Your task to perform on an android device: Search for razer huntsman on ebay.com, select the first entry, and add it to the cart. Image 0: 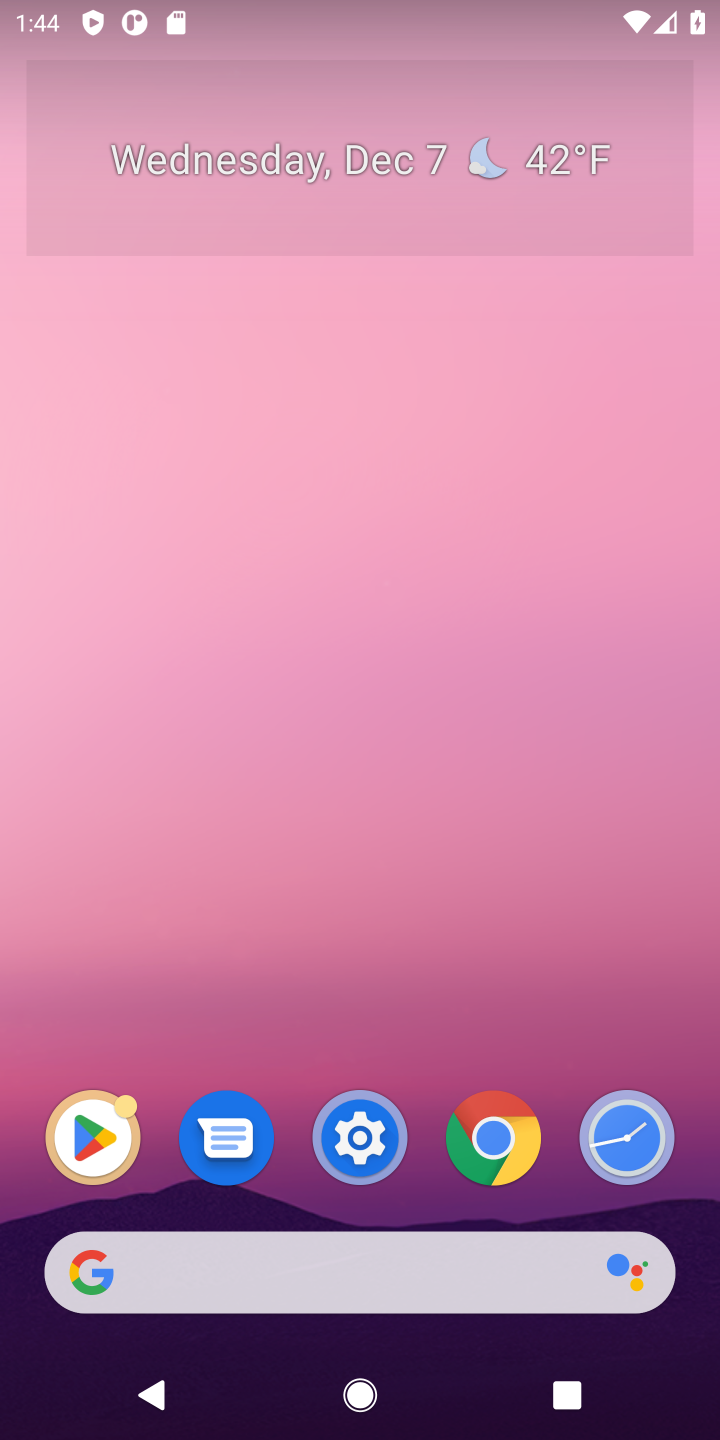
Step 0: click (363, 1288)
Your task to perform on an android device: Search for razer huntsman on ebay.com, select the first entry, and add it to the cart. Image 1: 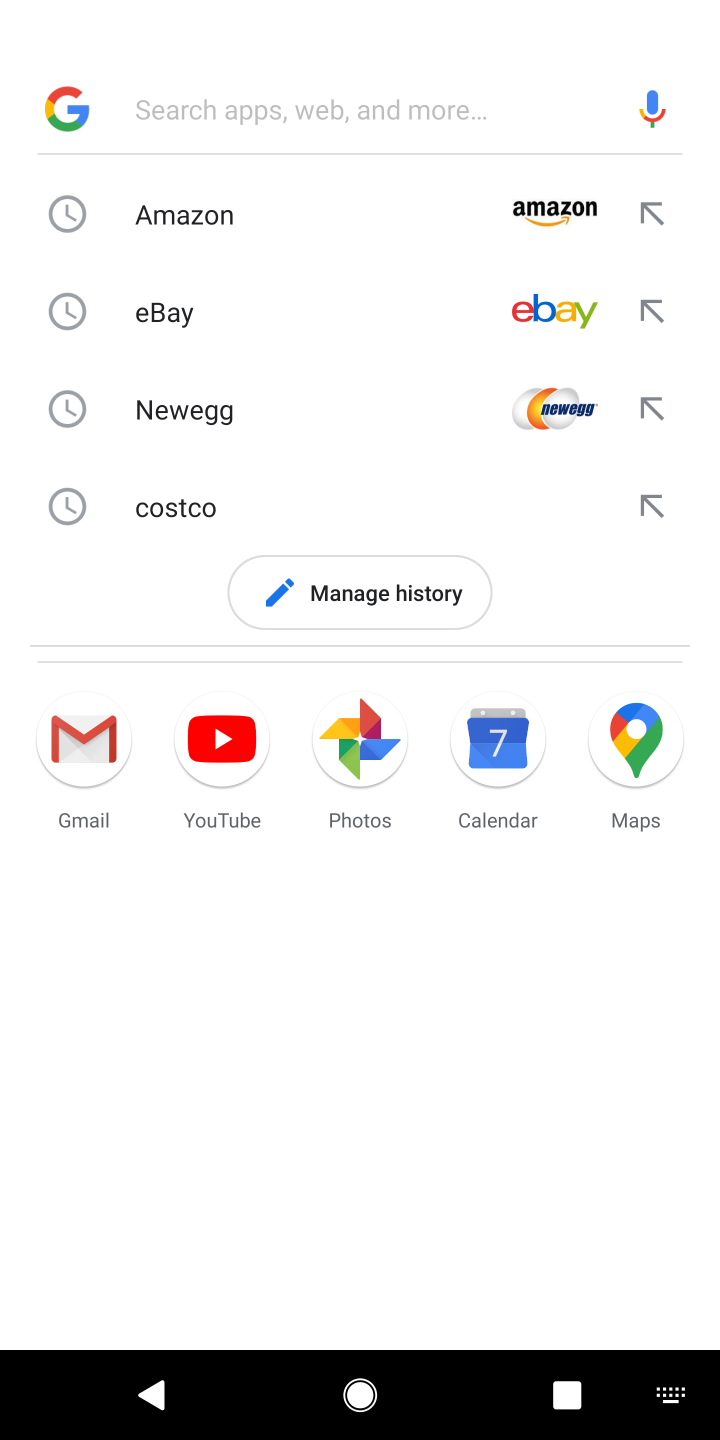
Step 1: click (447, 305)
Your task to perform on an android device: Search for razer huntsman on ebay.com, select the first entry, and add it to the cart. Image 2: 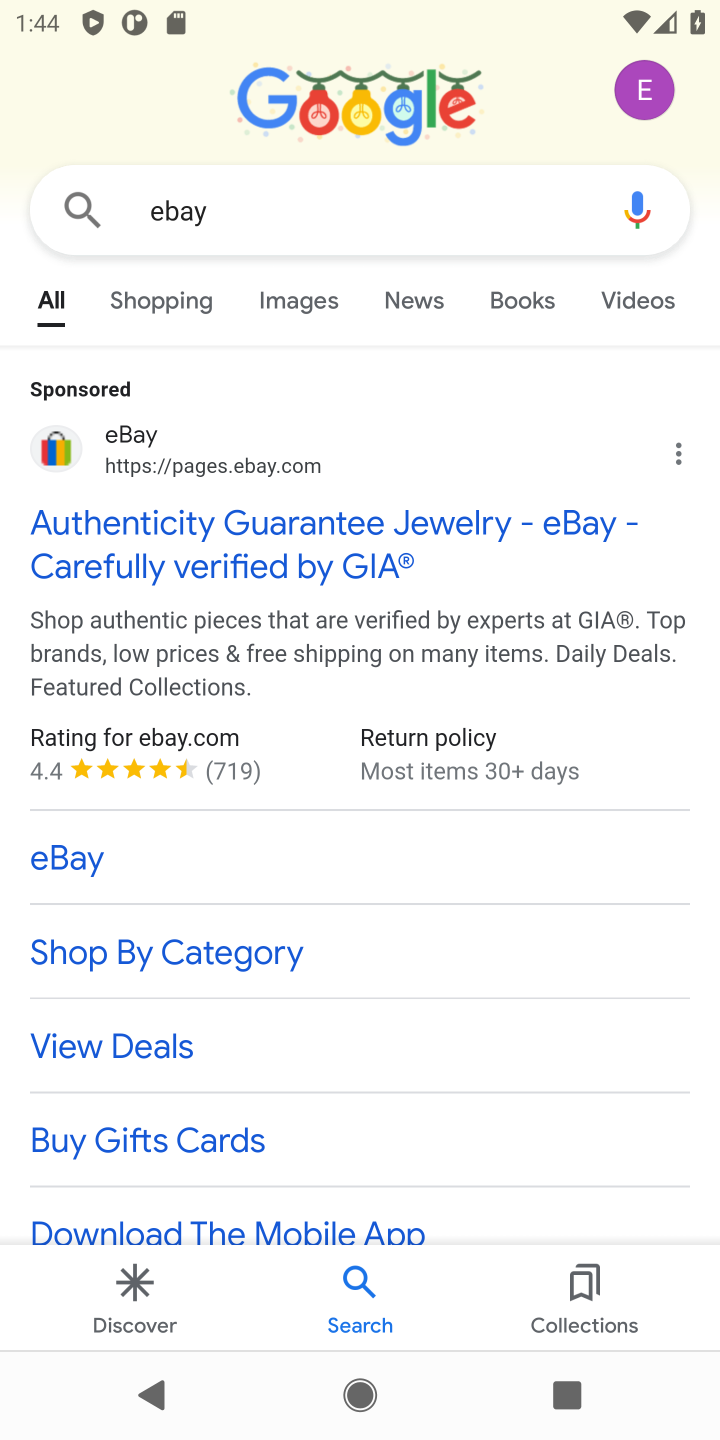
Step 2: click (209, 517)
Your task to perform on an android device: Search for razer huntsman on ebay.com, select the first entry, and add it to the cart. Image 3: 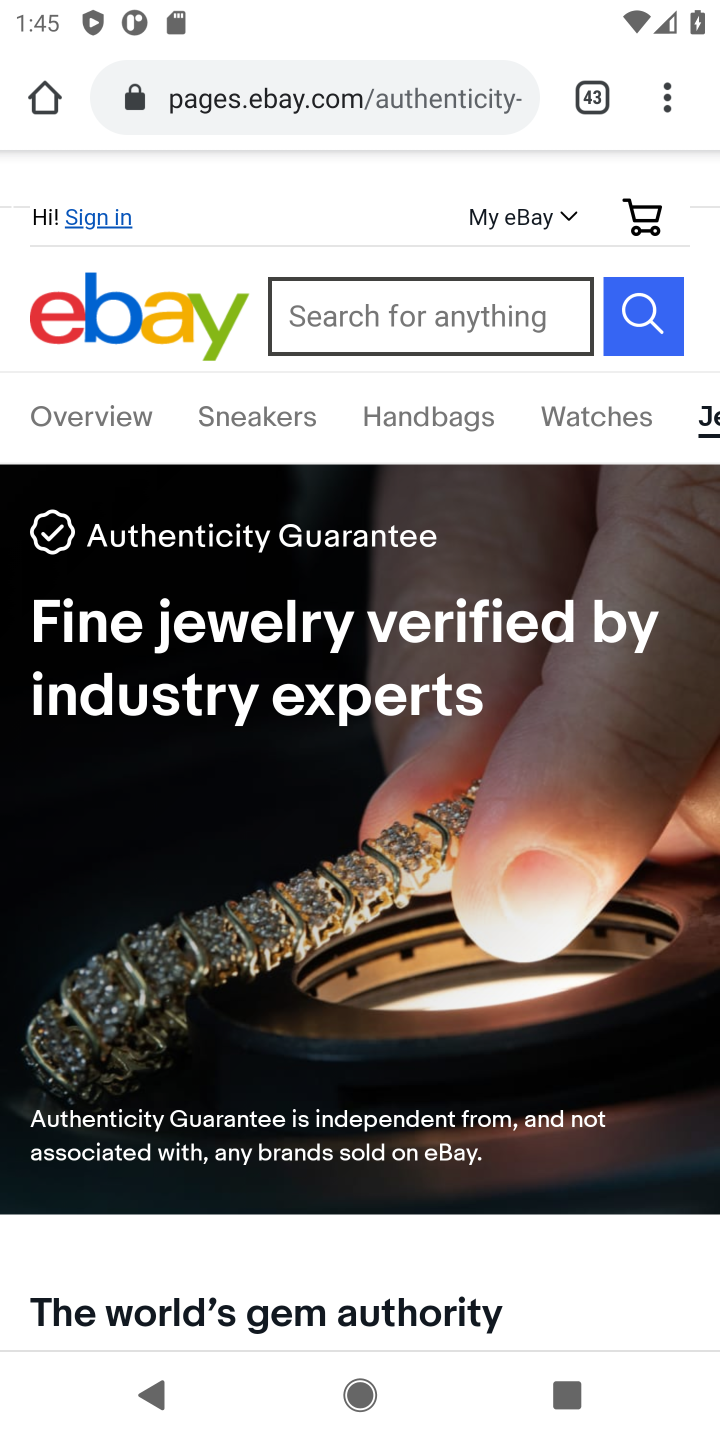
Step 3: click (462, 291)
Your task to perform on an android device: Search for razer huntsman on ebay.com, select the first entry, and add it to the cart. Image 4: 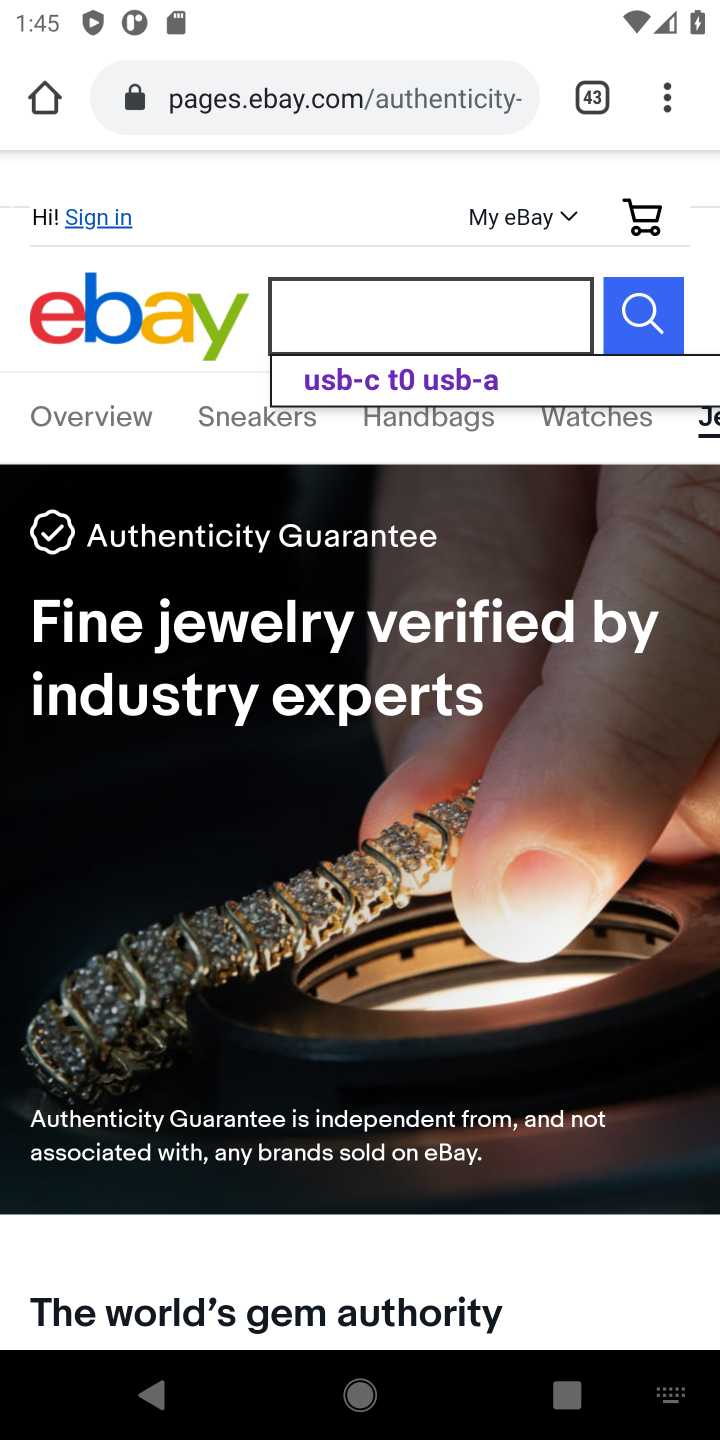
Step 4: type "razer huntsman"
Your task to perform on an android device: Search for razer huntsman on ebay.com, select the first entry, and add it to the cart. Image 5: 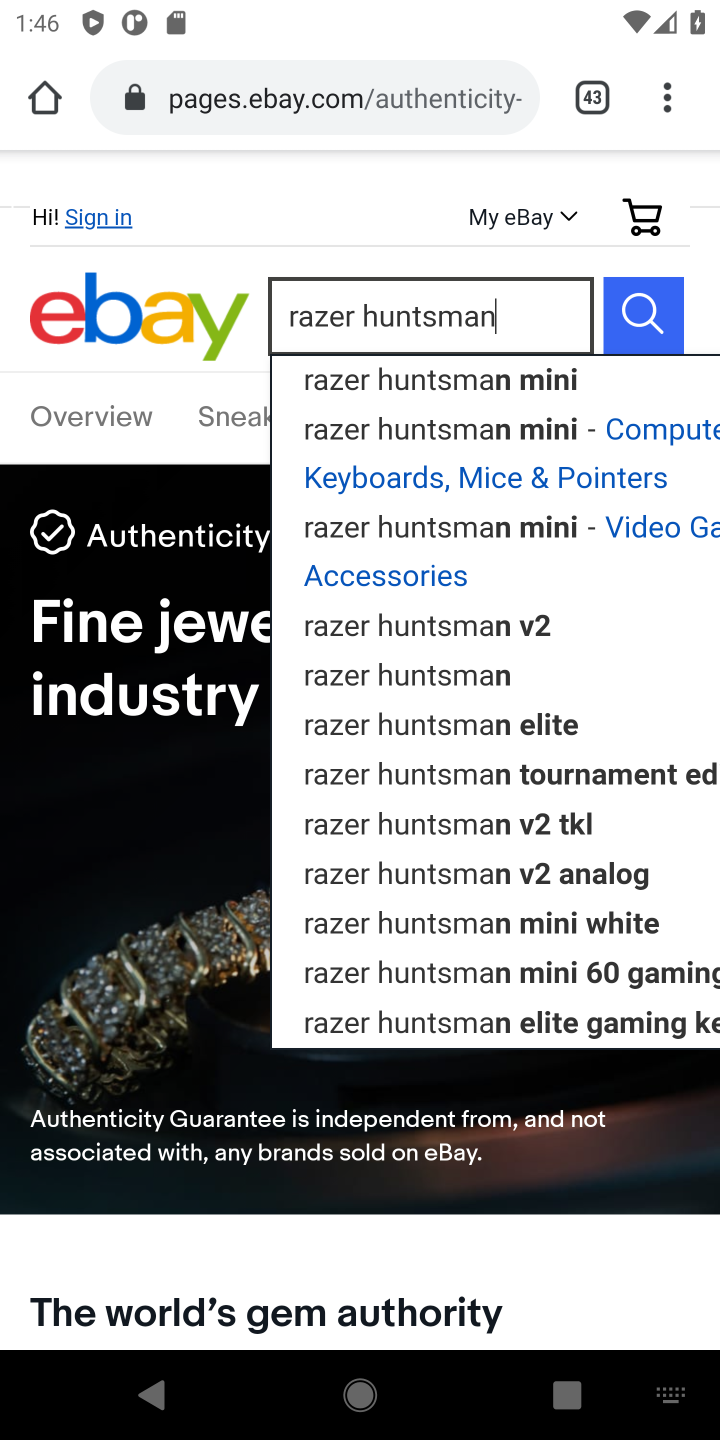
Step 5: click (659, 333)
Your task to perform on an android device: Search for razer huntsman on ebay.com, select the first entry, and add it to the cart. Image 6: 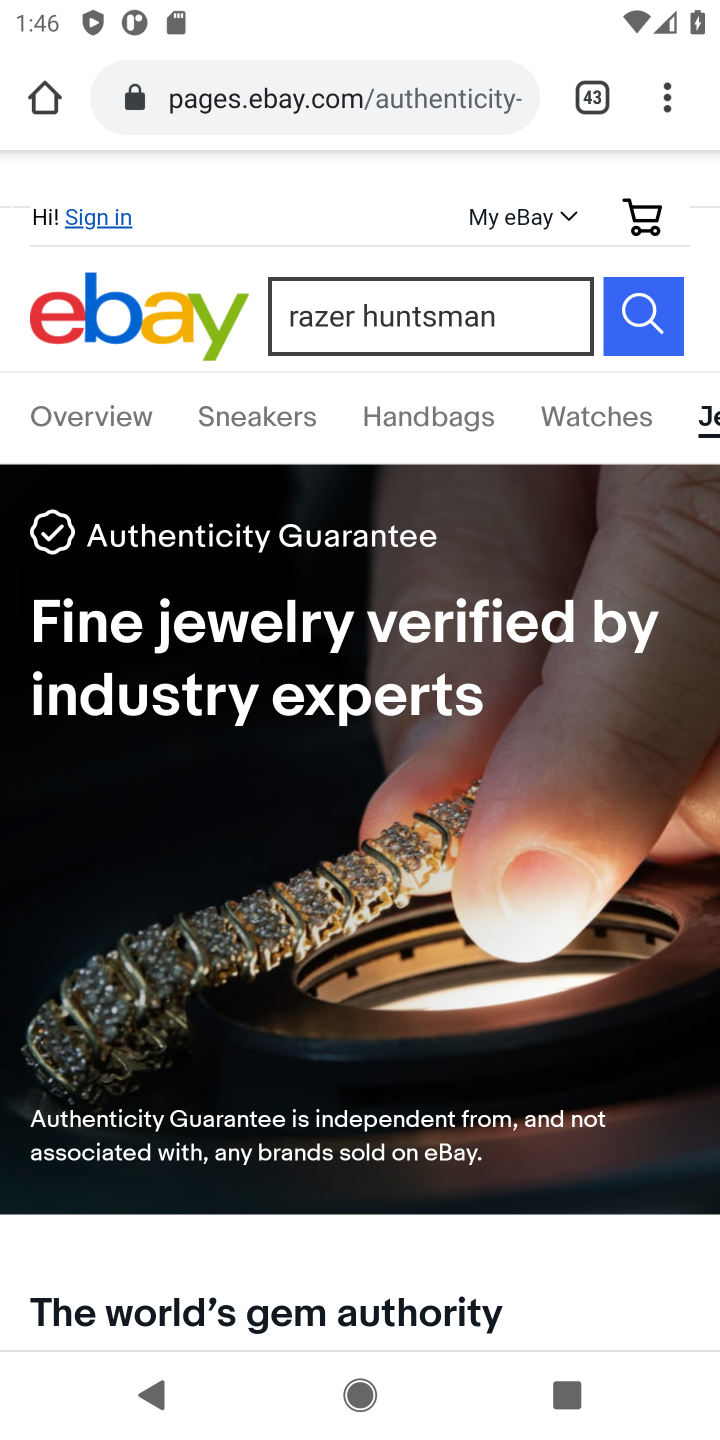
Step 6: task complete